Your task to perform on an android device: When is my next appointment? Image 0: 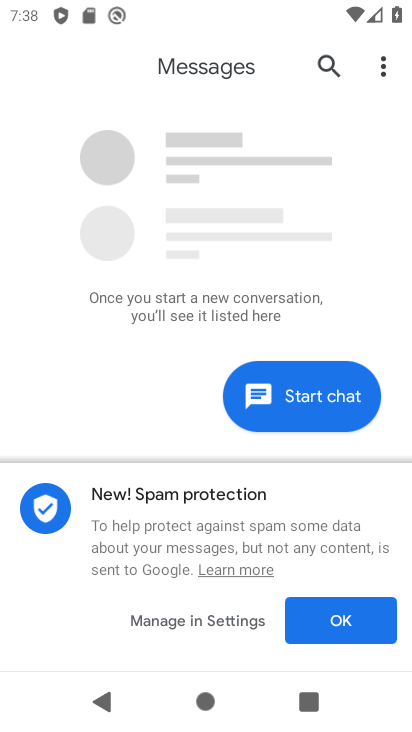
Step 0: press home button
Your task to perform on an android device: When is my next appointment? Image 1: 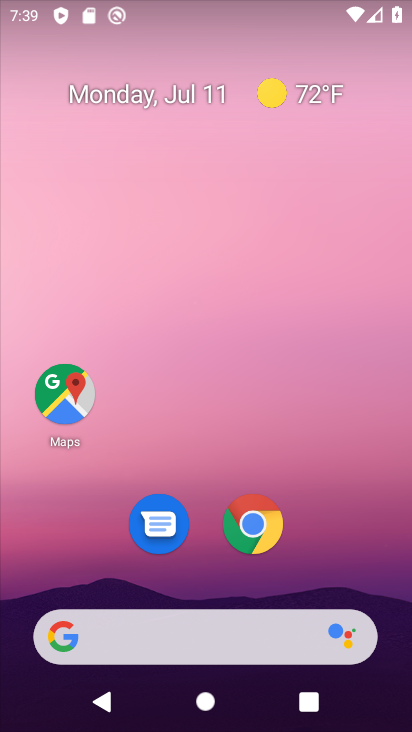
Step 1: drag from (331, 536) to (322, 18)
Your task to perform on an android device: When is my next appointment? Image 2: 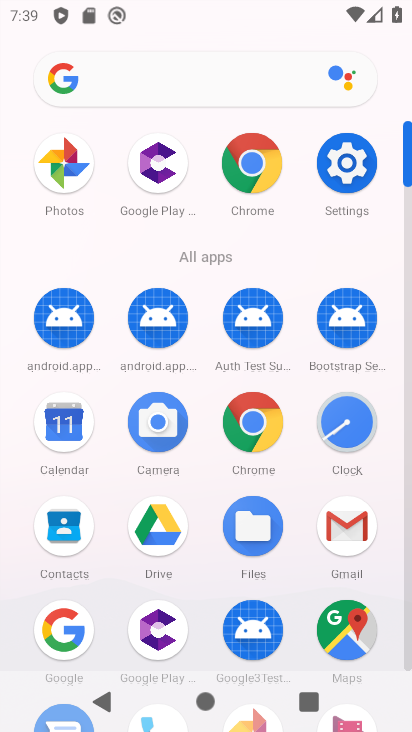
Step 2: click (71, 421)
Your task to perform on an android device: When is my next appointment? Image 3: 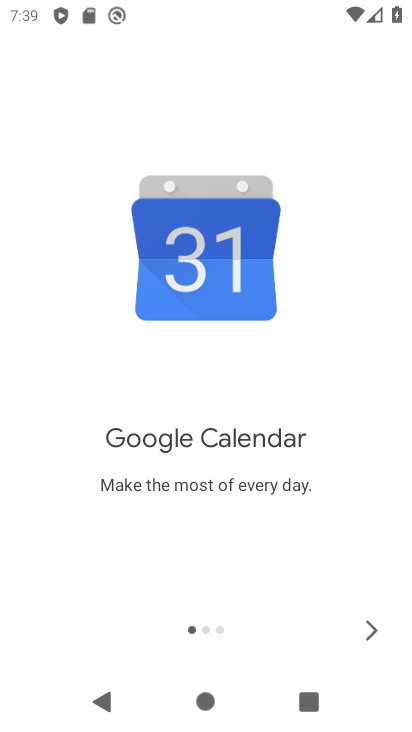
Step 3: click (366, 622)
Your task to perform on an android device: When is my next appointment? Image 4: 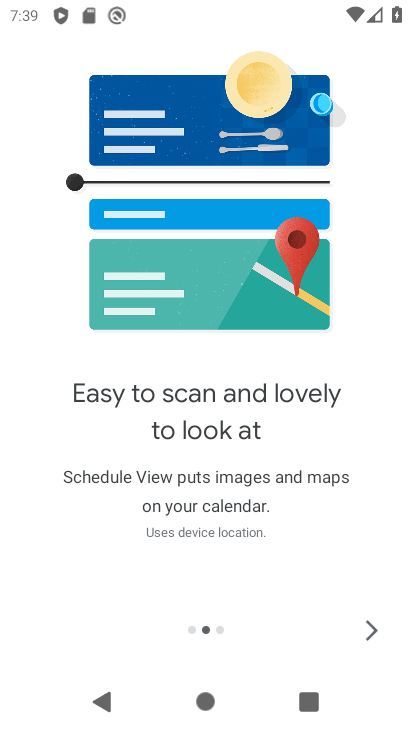
Step 4: click (370, 625)
Your task to perform on an android device: When is my next appointment? Image 5: 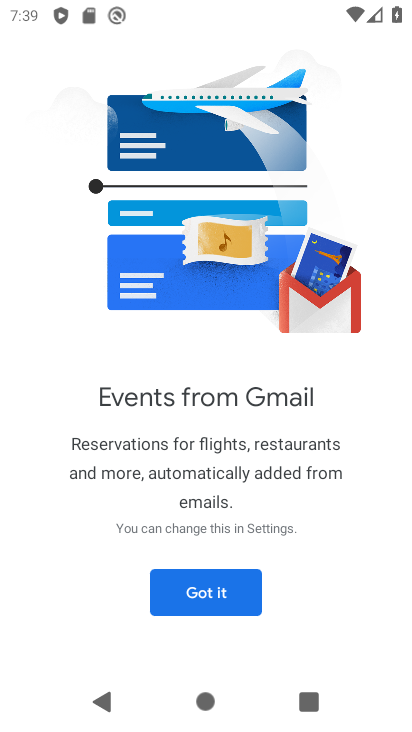
Step 5: click (252, 601)
Your task to perform on an android device: When is my next appointment? Image 6: 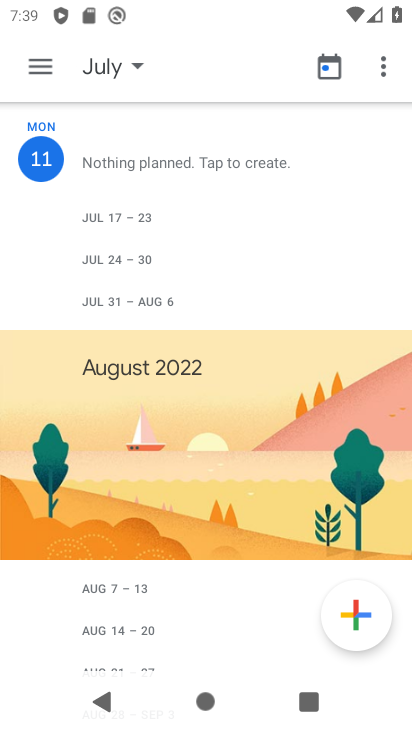
Step 6: task complete